Your task to perform on an android device: Open the calendar app, open the side menu, and click the "Day" option Image 0: 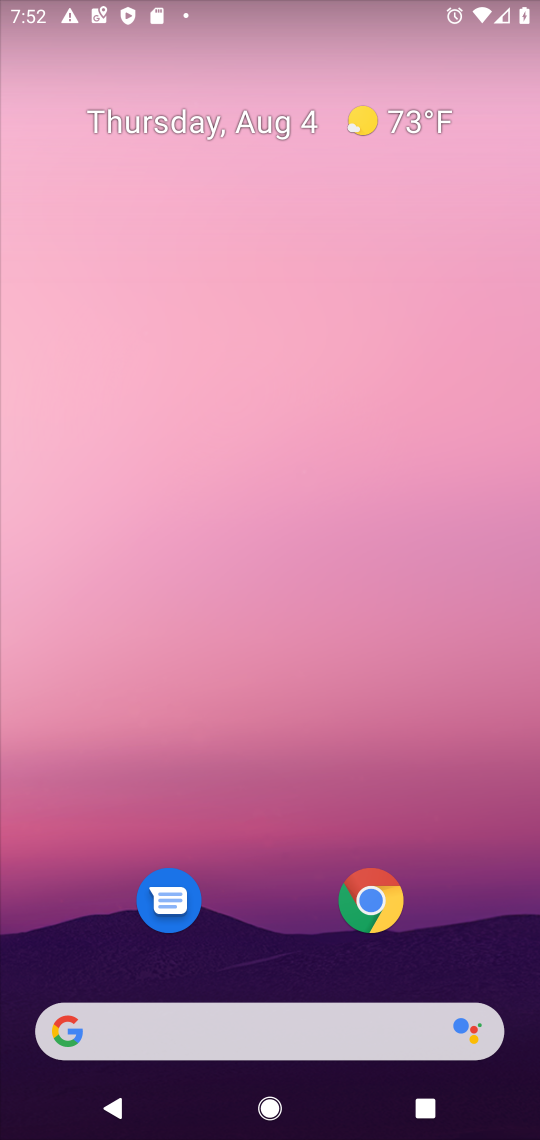
Step 0: drag from (195, 1019) to (494, 38)
Your task to perform on an android device: Open the calendar app, open the side menu, and click the "Day" option Image 1: 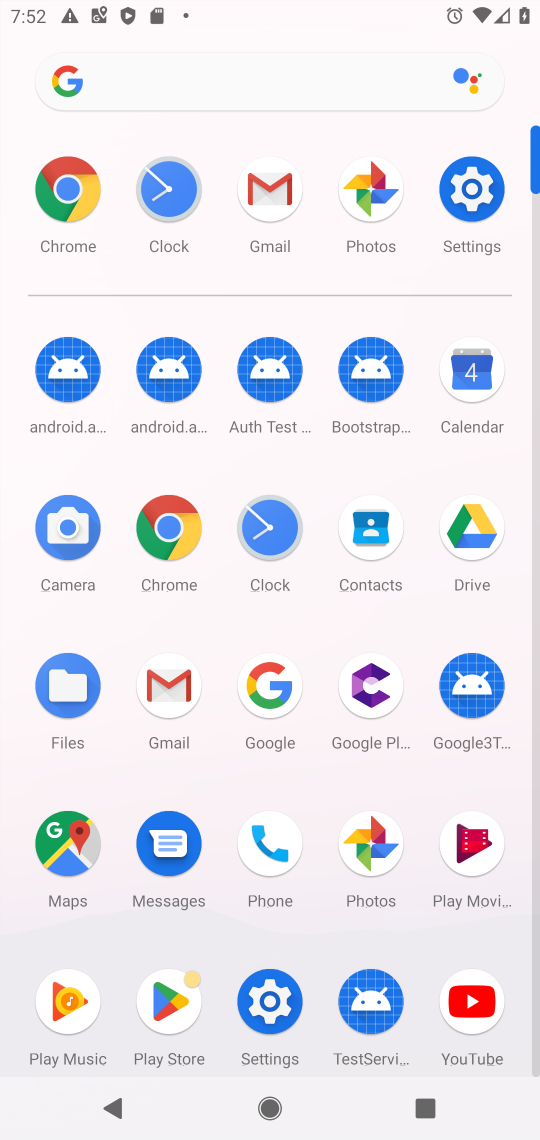
Step 1: click (471, 379)
Your task to perform on an android device: Open the calendar app, open the side menu, and click the "Day" option Image 2: 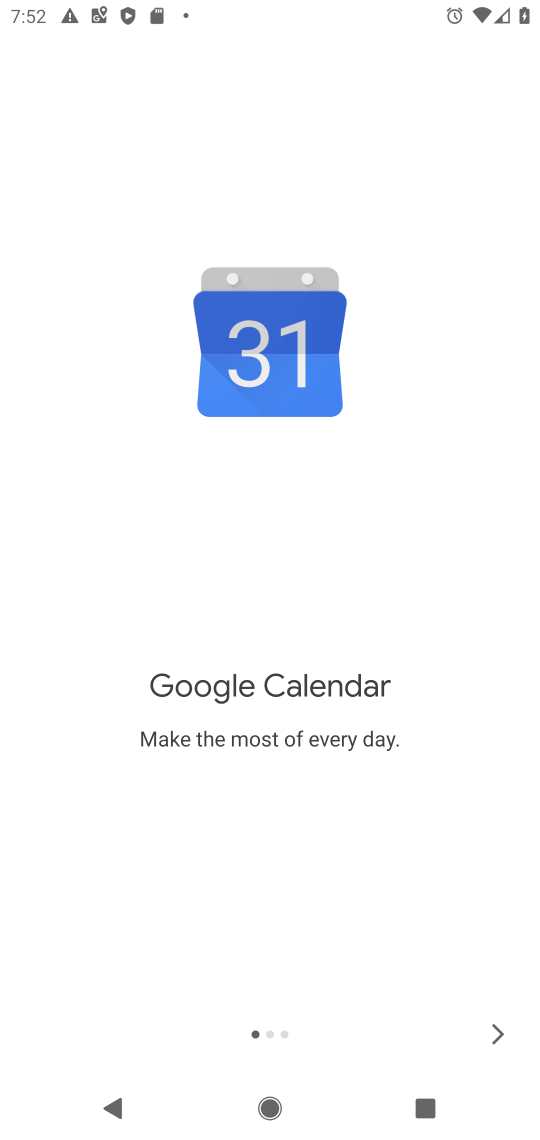
Step 2: click (498, 1031)
Your task to perform on an android device: Open the calendar app, open the side menu, and click the "Day" option Image 3: 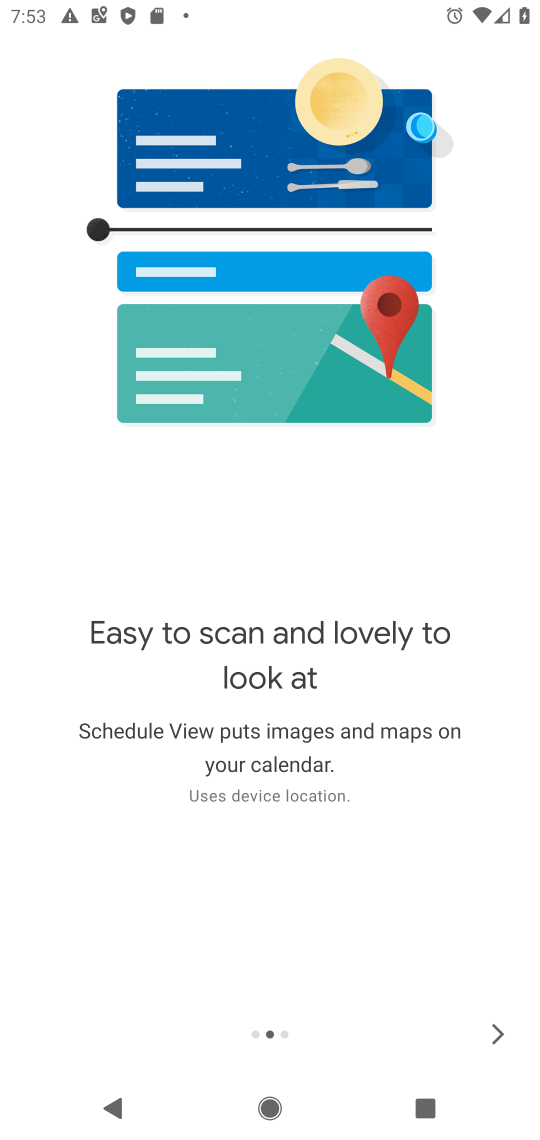
Step 3: click (498, 1031)
Your task to perform on an android device: Open the calendar app, open the side menu, and click the "Day" option Image 4: 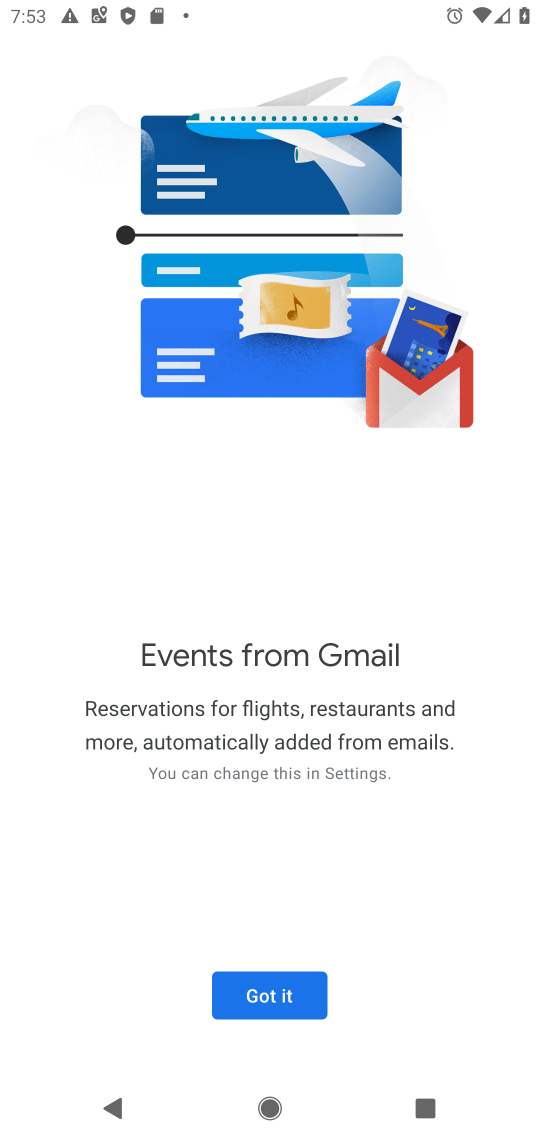
Step 4: click (294, 1004)
Your task to perform on an android device: Open the calendar app, open the side menu, and click the "Day" option Image 5: 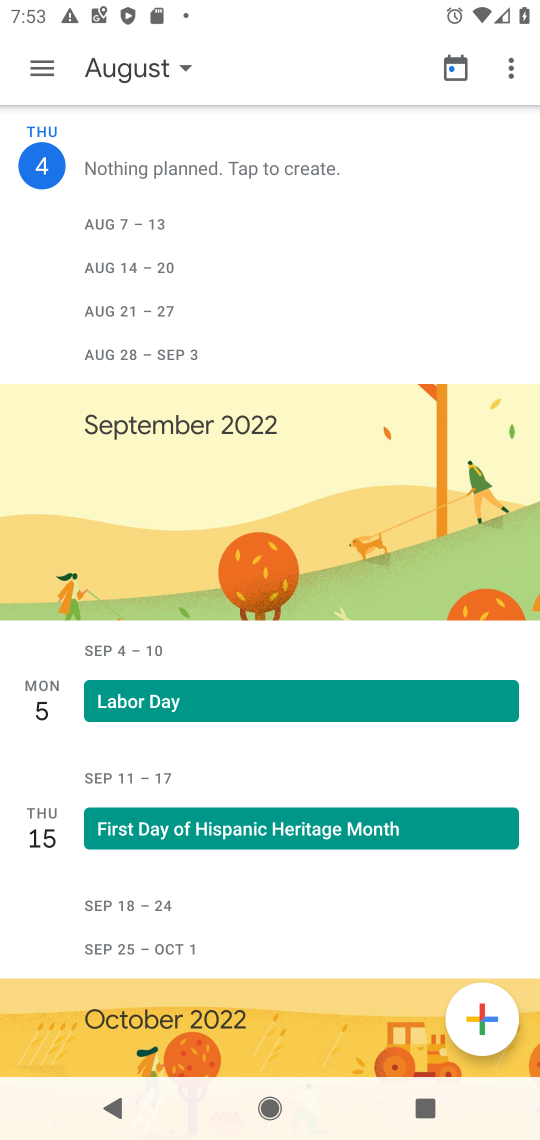
Step 5: click (45, 64)
Your task to perform on an android device: Open the calendar app, open the side menu, and click the "Day" option Image 6: 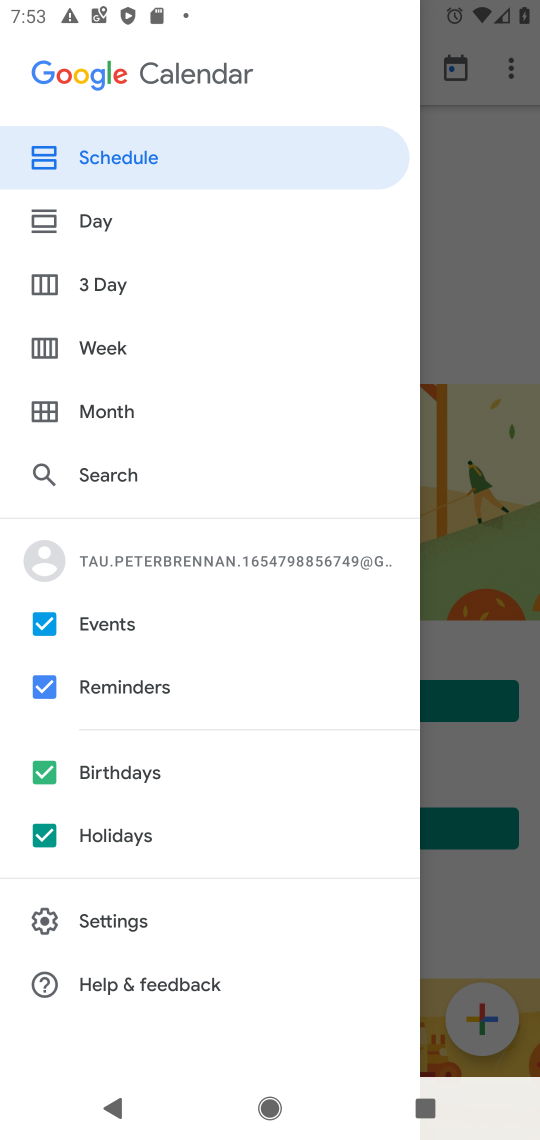
Step 6: click (88, 223)
Your task to perform on an android device: Open the calendar app, open the side menu, and click the "Day" option Image 7: 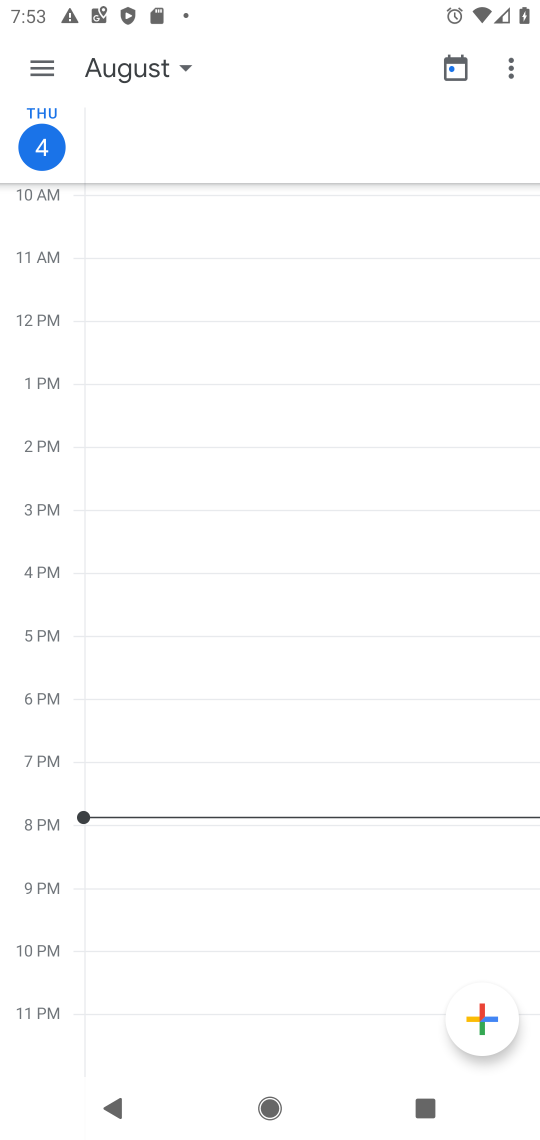
Step 7: task complete